Your task to perform on an android device: Turn on the flashlight Image 0: 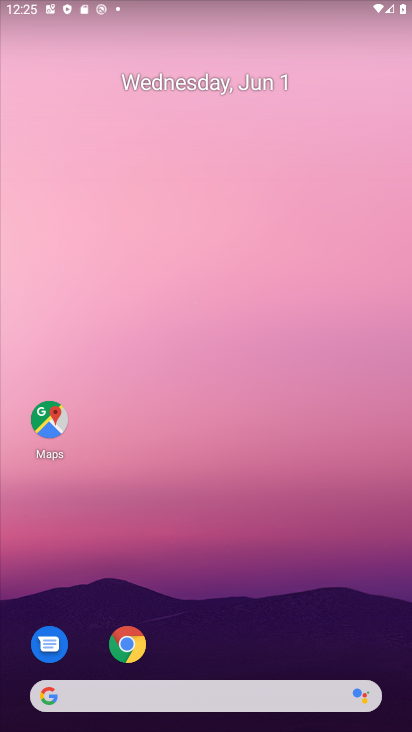
Step 0: drag from (204, 578) to (209, 343)
Your task to perform on an android device: Turn on the flashlight Image 1: 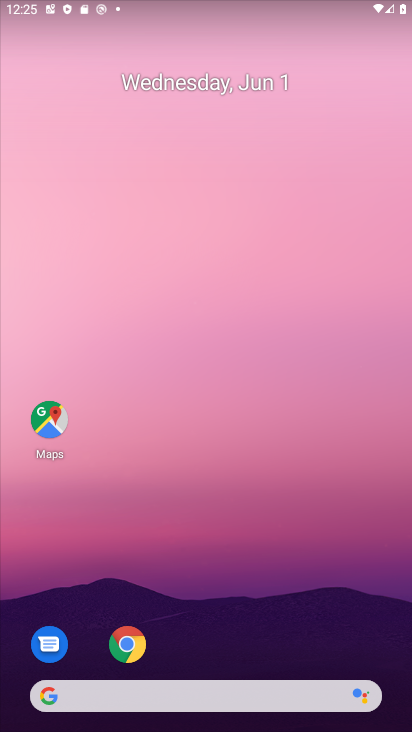
Step 1: drag from (268, 488) to (224, 38)
Your task to perform on an android device: Turn on the flashlight Image 2: 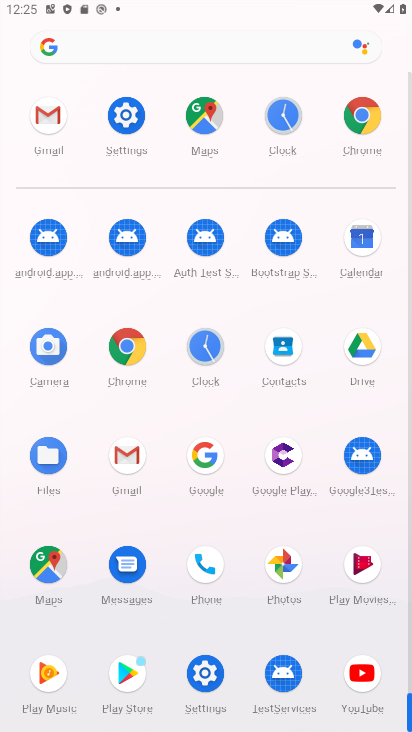
Step 2: click (354, 116)
Your task to perform on an android device: Turn on the flashlight Image 3: 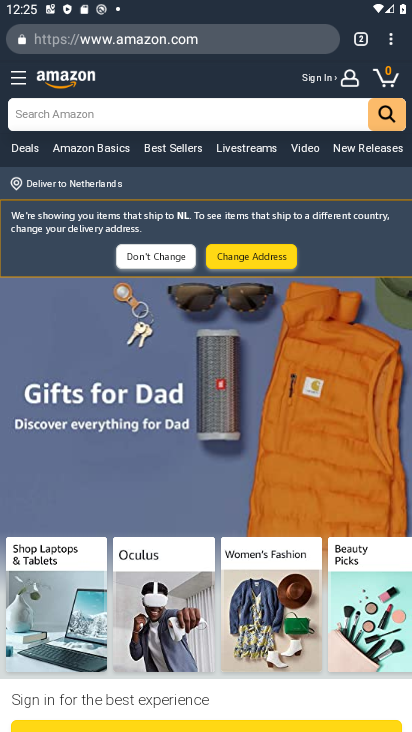
Step 3: click (220, 31)
Your task to perform on an android device: Turn on the flashlight Image 4: 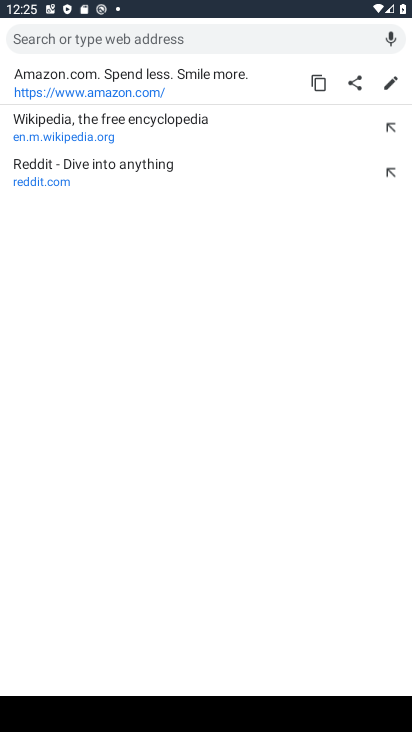
Step 4: press home button
Your task to perform on an android device: Turn on the flashlight Image 5: 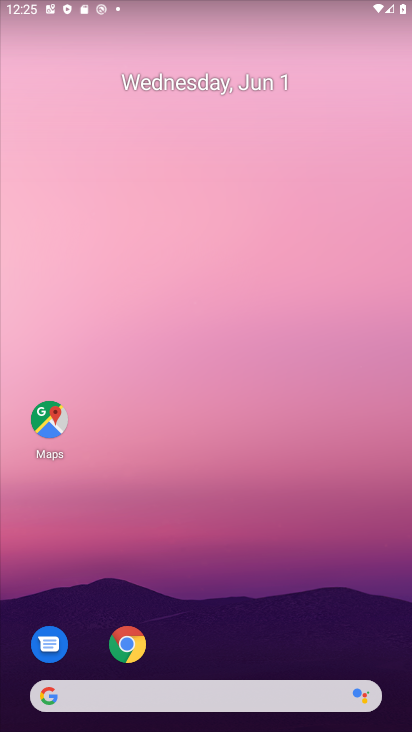
Step 5: drag from (336, 599) to (247, 240)
Your task to perform on an android device: Turn on the flashlight Image 6: 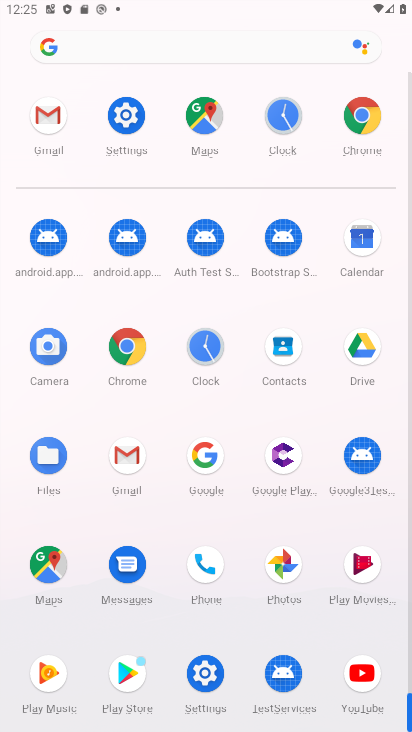
Step 6: click (189, 670)
Your task to perform on an android device: Turn on the flashlight Image 7: 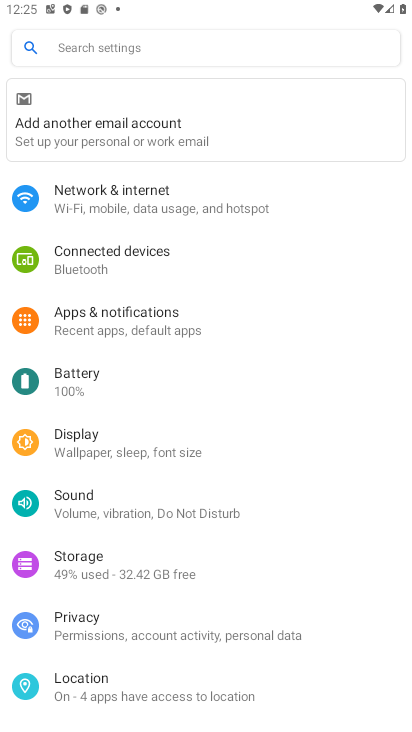
Step 7: click (157, 43)
Your task to perform on an android device: Turn on the flashlight Image 8: 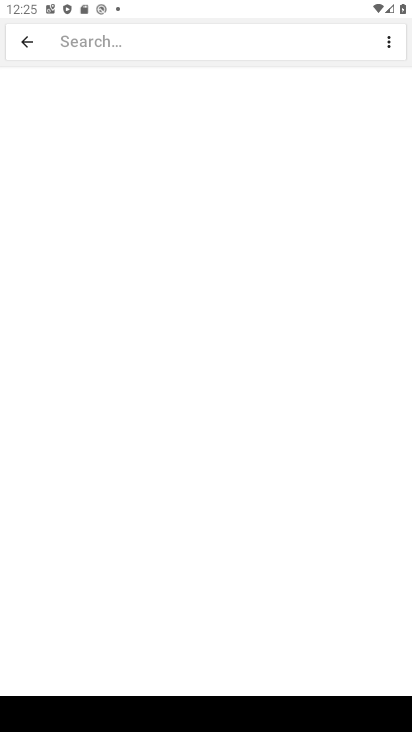
Step 8: type "flashlight"
Your task to perform on an android device: Turn on the flashlight Image 9: 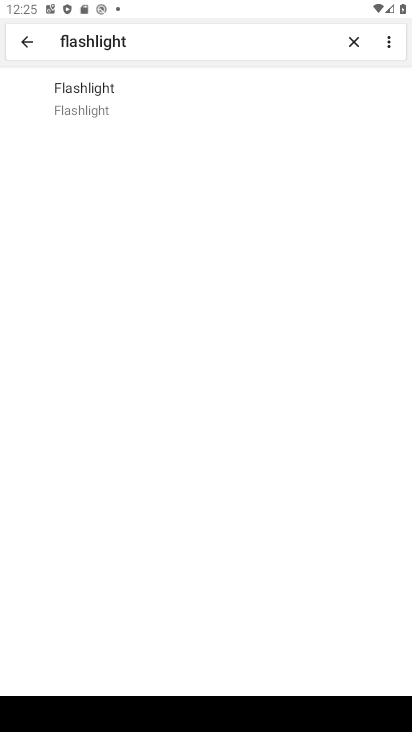
Step 9: click (100, 85)
Your task to perform on an android device: Turn on the flashlight Image 10: 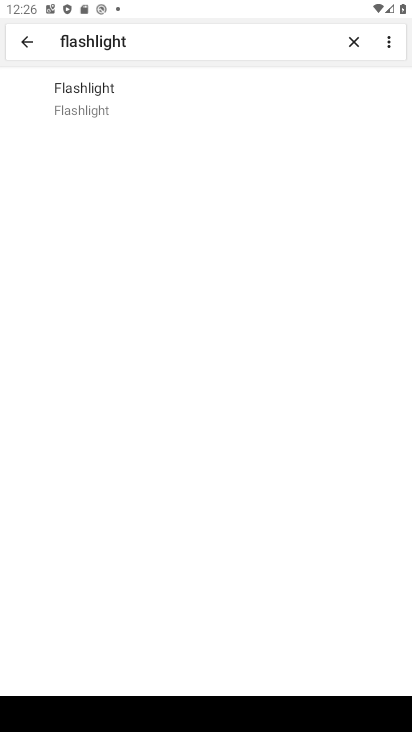
Step 10: task complete